Your task to perform on an android device: Go to Google maps Image 0: 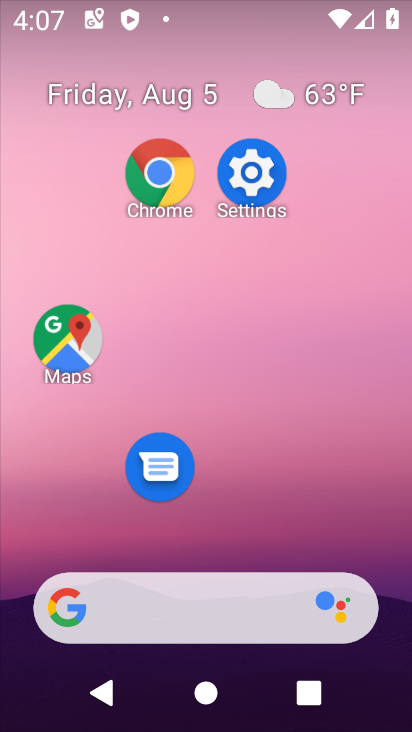
Step 0: drag from (322, 501) to (316, 119)
Your task to perform on an android device: Go to Google maps Image 1: 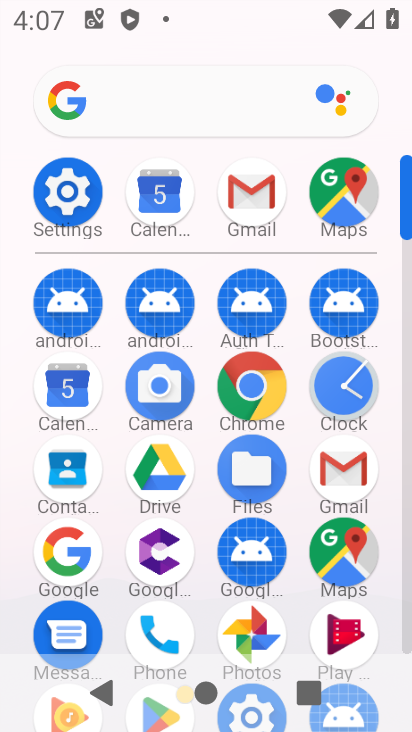
Step 1: click (339, 551)
Your task to perform on an android device: Go to Google maps Image 2: 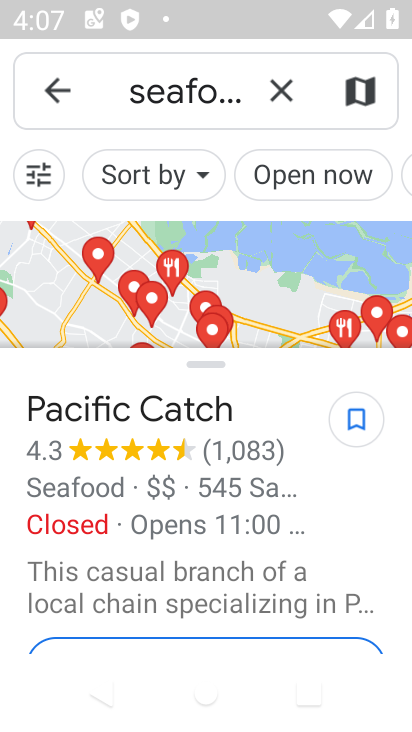
Step 2: click (51, 79)
Your task to perform on an android device: Go to Google maps Image 3: 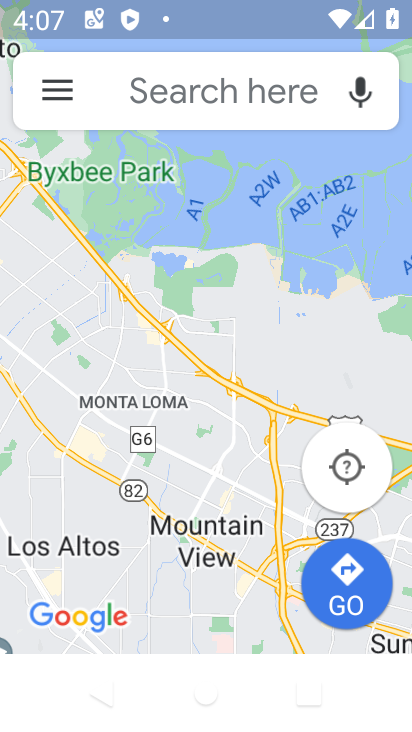
Step 3: task complete